Your task to perform on an android device: toggle airplane mode Image 0: 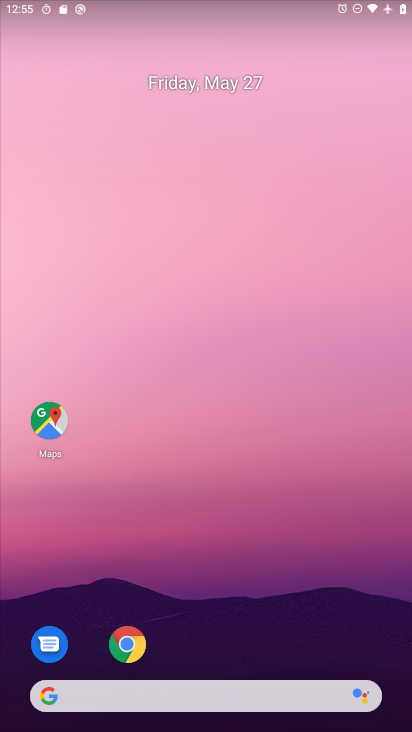
Step 0: drag from (225, 653) to (224, 193)
Your task to perform on an android device: toggle airplane mode Image 1: 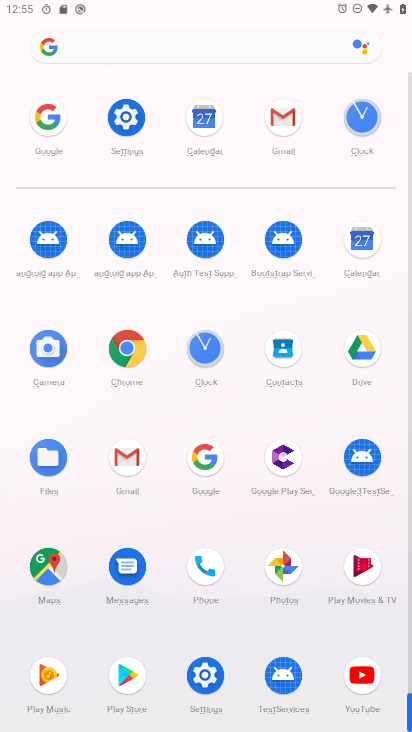
Step 1: click (143, 117)
Your task to perform on an android device: toggle airplane mode Image 2: 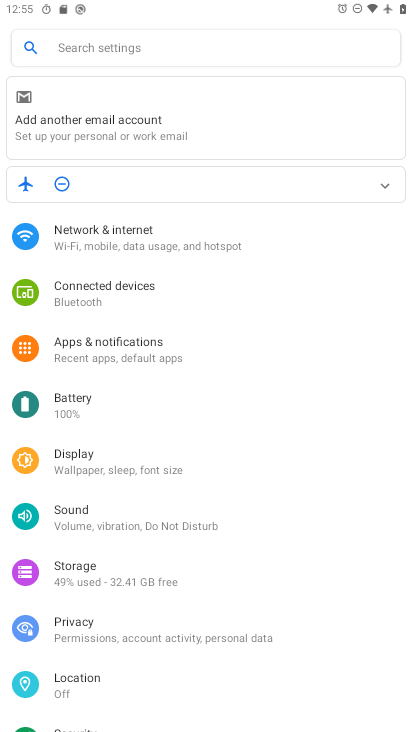
Step 2: click (138, 255)
Your task to perform on an android device: toggle airplane mode Image 3: 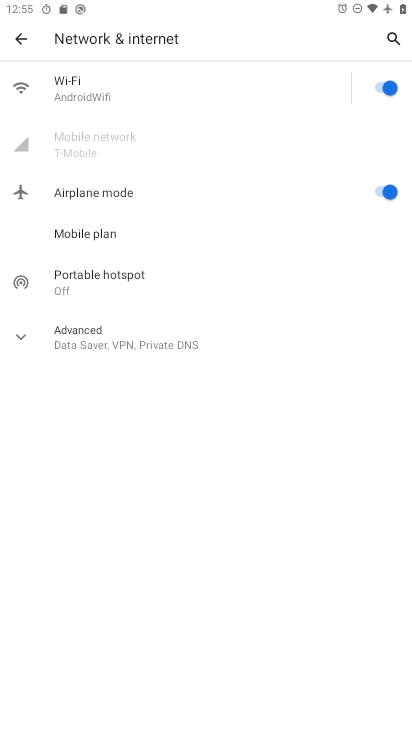
Step 3: click (382, 195)
Your task to perform on an android device: toggle airplane mode Image 4: 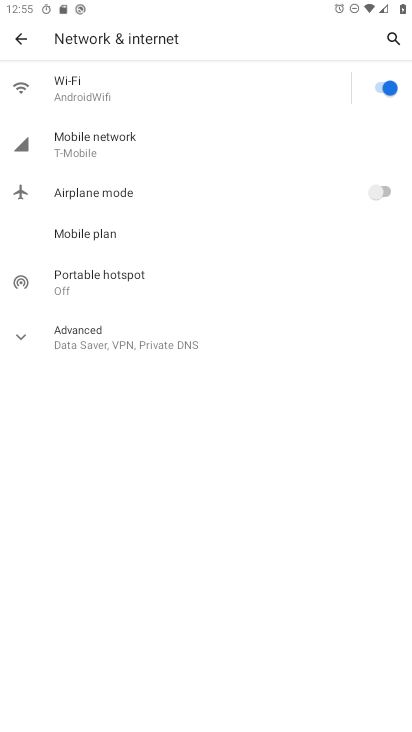
Step 4: task complete